Your task to perform on an android device: allow cookies in the chrome app Image 0: 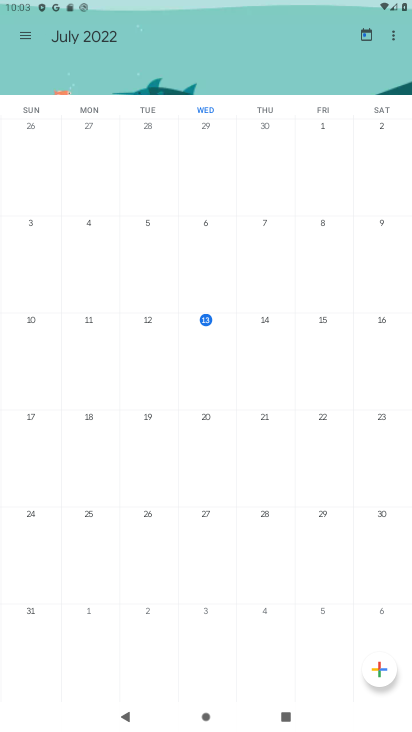
Step 0: press back button
Your task to perform on an android device: allow cookies in the chrome app Image 1: 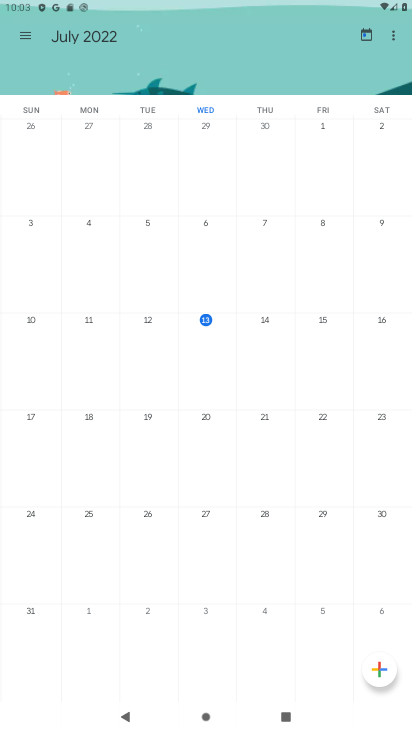
Step 1: press back button
Your task to perform on an android device: allow cookies in the chrome app Image 2: 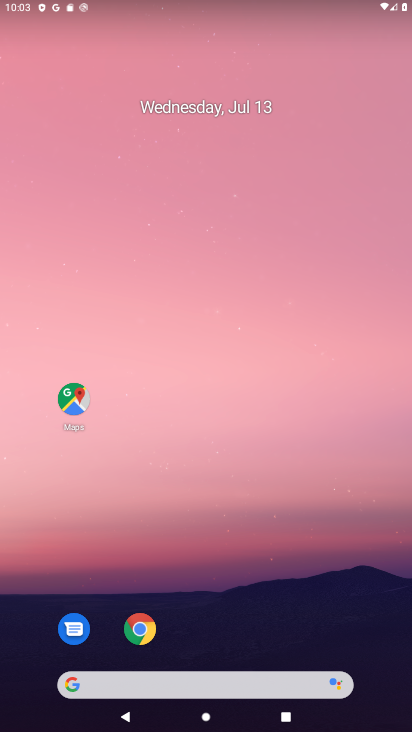
Step 2: press back button
Your task to perform on an android device: allow cookies in the chrome app Image 3: 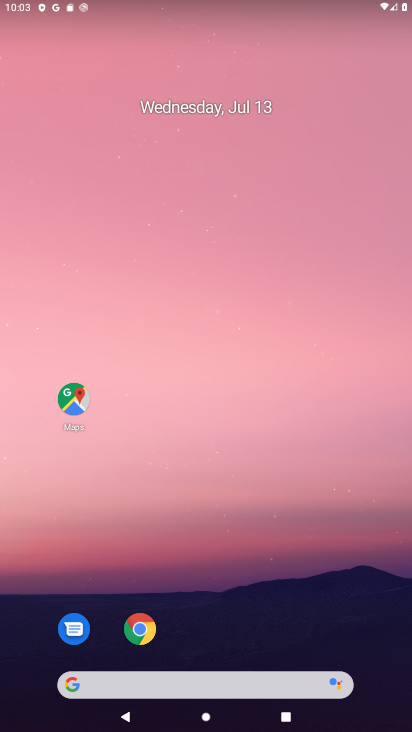
Step 3: drag from (181, 648) to (28, 37)
Your task to perform on an android device: allow cookies in the chrome app Image 4: 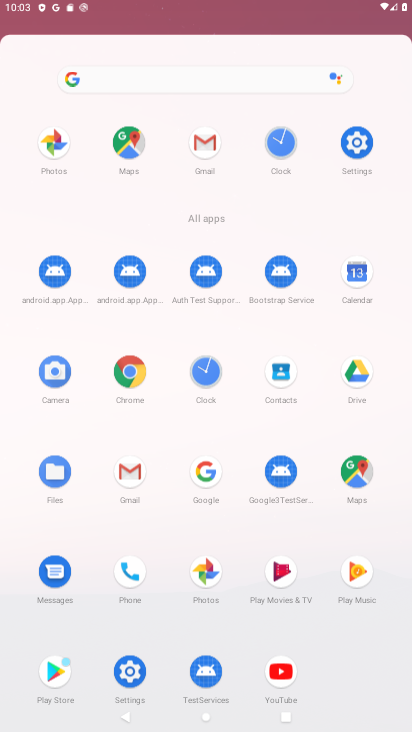
Step 4: click (184, 4)
Your task to perform on an android device: allow cookies in the chrome app Image 5: 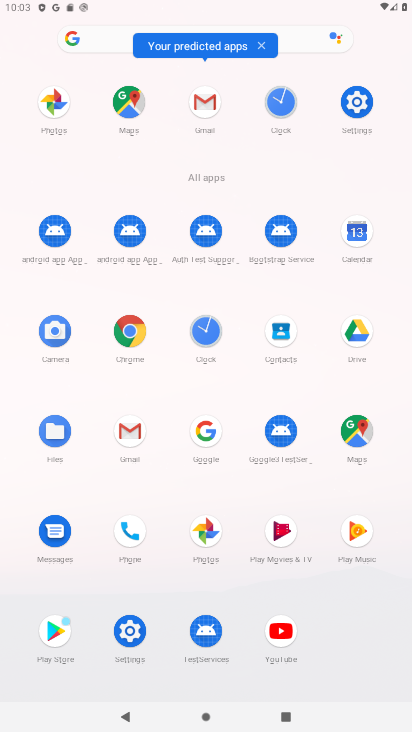
Step 5: click (141, 326)
Your task to perform on an android device: allow cookies in the chrome app Image 6: 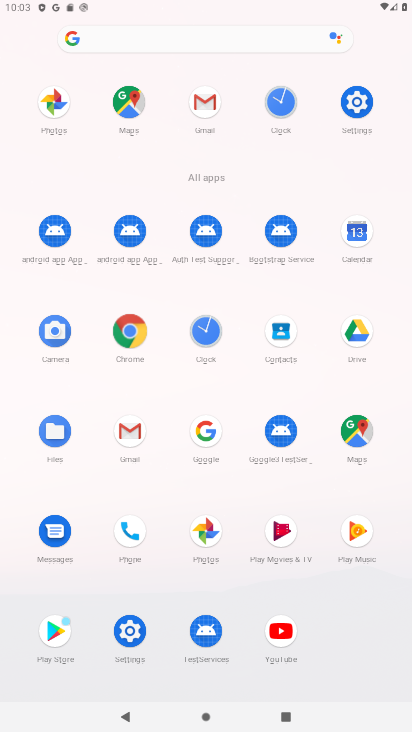
Step 6: click (135, 327)
Your task to perform on an android device: allow cookies in the chrome app Image 7: 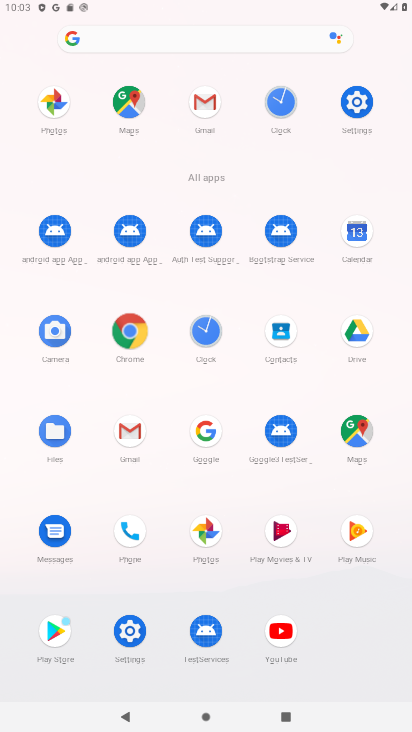
Step 7: click (135, 328)
Your task to perform on an android device: allow cookies in the chrome app Image 8: 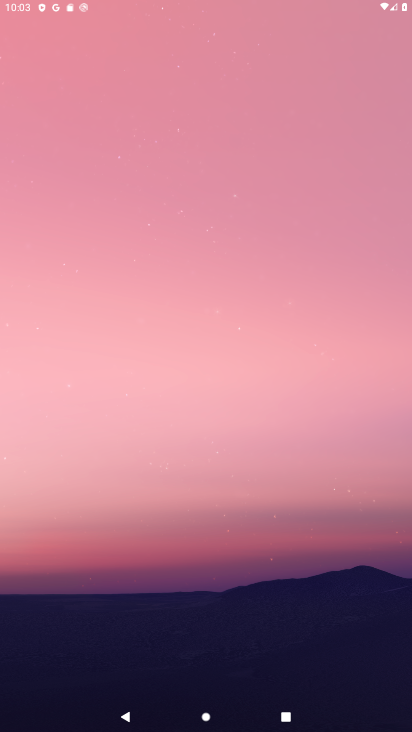
Step 8: click (132, 325)
Your task to perform on an android device: allow cookies in the chrome app Image 9: 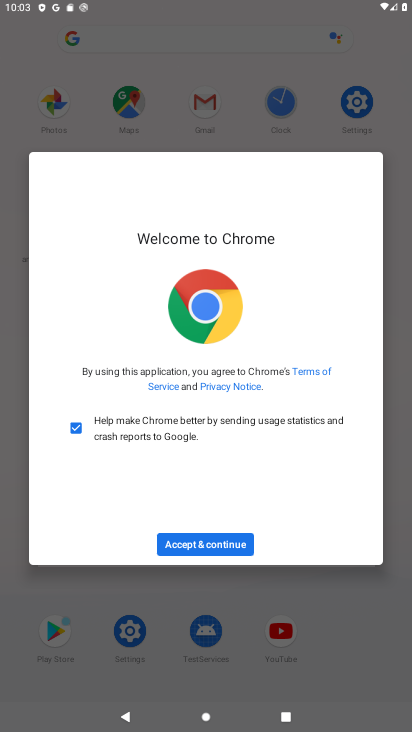
Step 9: click (227, 535)
Your task to perform on an android device: allow cookies in the chrome app Image 10: 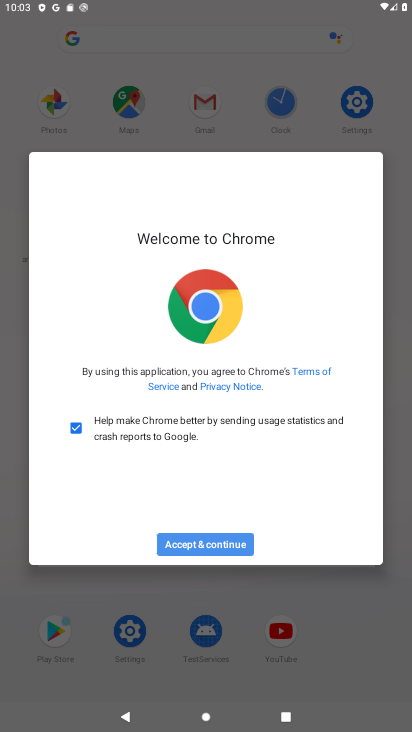
Step 10: click (215, 530)
Your task to perform on an android device: allow cookies in the chrome app Image 11: 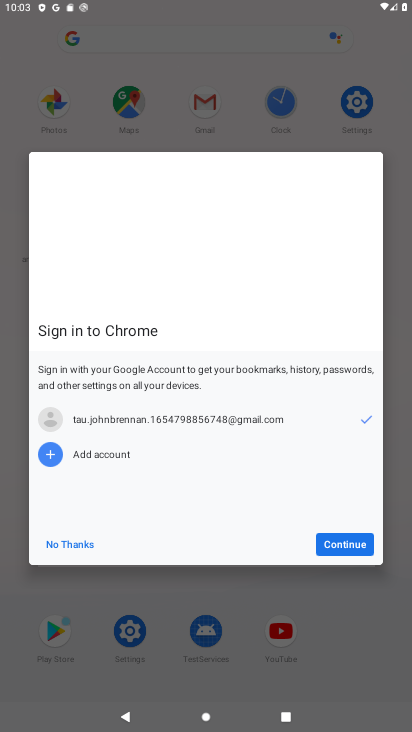
Step 11: click (220, 531)
Your task to perform on an android device: allow cookies in the chrome app Image 12: 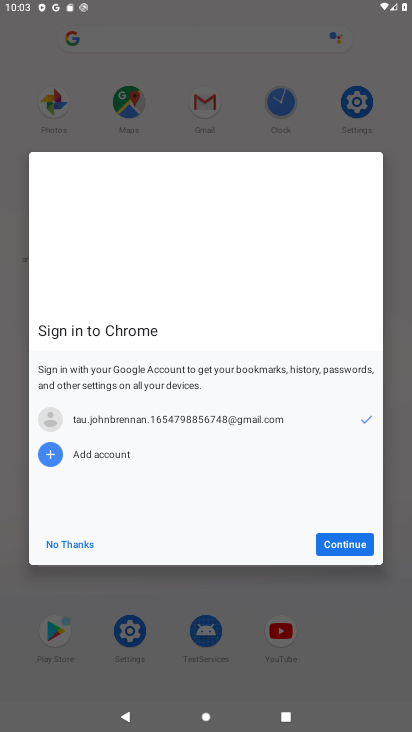
Step 12: click (324, 548)
Your task to perform on an android device: allow cookies in the chrome app Image 13: 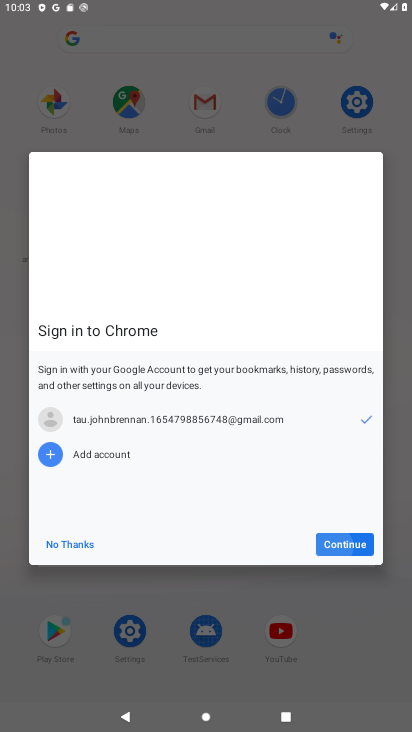
Step 13: click (324, 548)
Your task to perform on an android device: allow cookies in the chrome app Image 14: 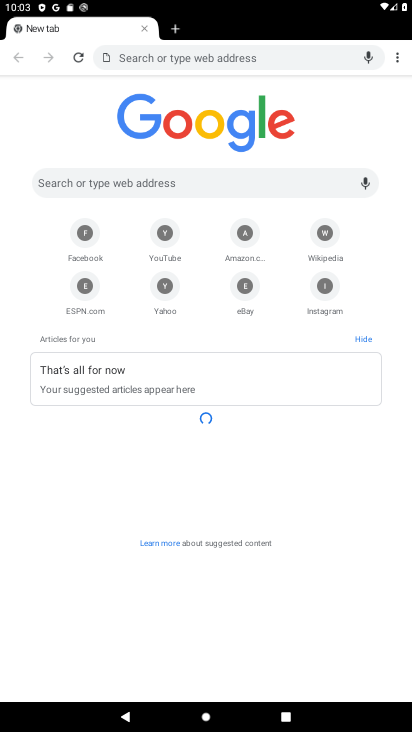
Step 14: drag from (395, 58) to (284, 268)
Your task to perform on an android device: allow cookies in the chrome app Image 15: 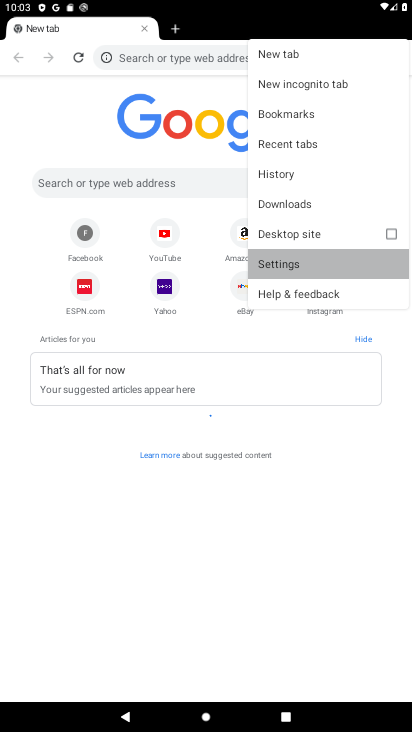
Step 15: click (284, 268)
Your task to perform on an android device: allow cookies in the chrome app Image 16: 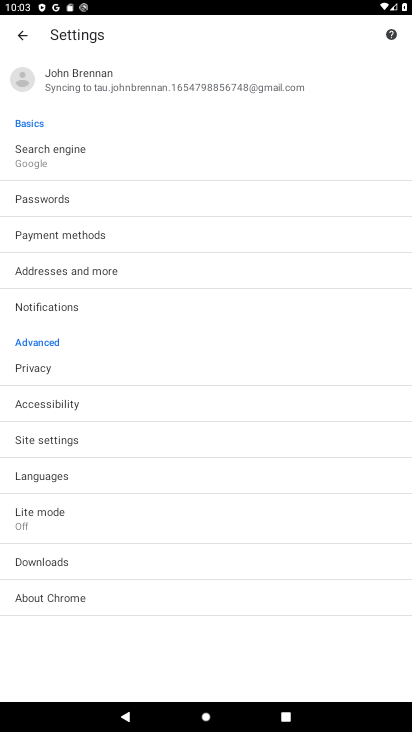
Step 16: click (35, 437)
Your task to perform on an android device: allow cookies in the chrome app Image 17: 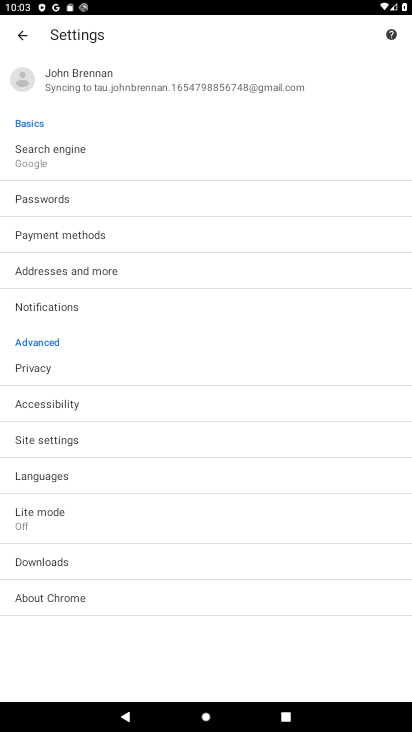
Step 17: click (37, 438)
Your task to perform on an android device: allow cookies in the chrome app Image 18: 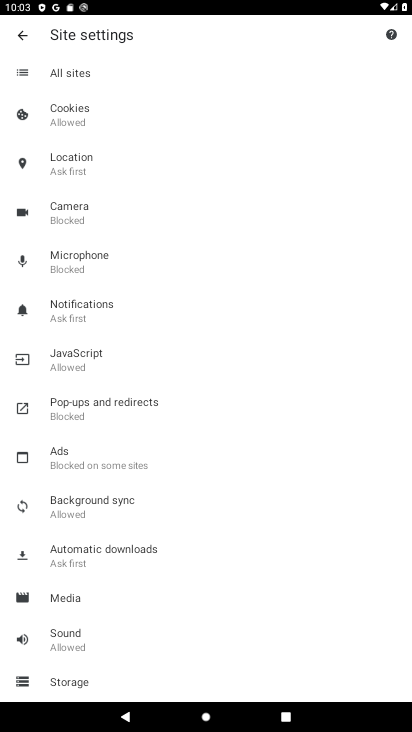
Step 18: click (75, 110)
Your task to perform on an android device: allow cookies in the chrome app Image 19: 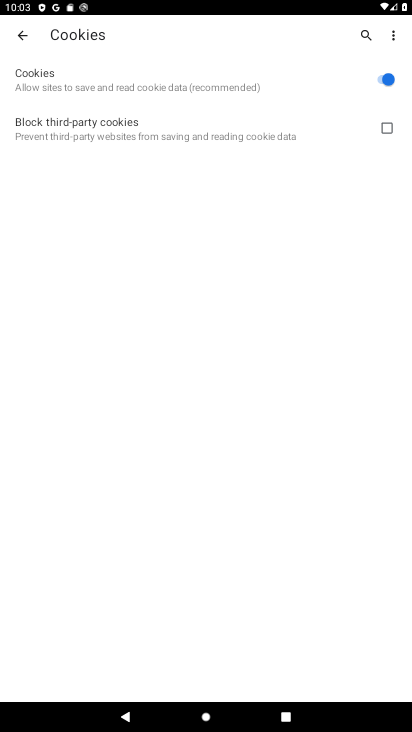
Step 19: task complete